Your task to perform on an android device: Go to Google maps Image 0: 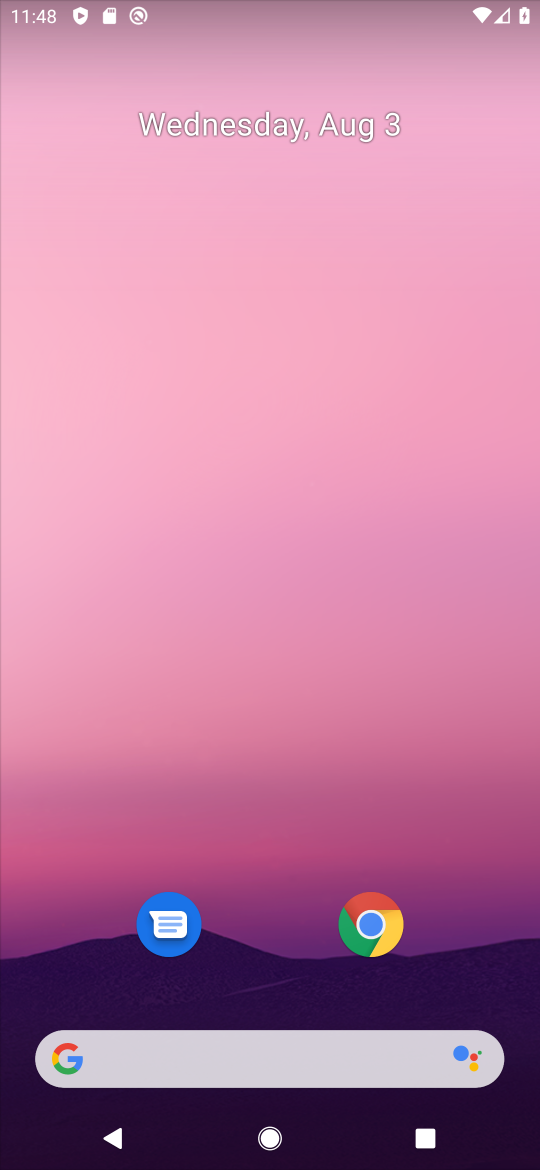
Step 0: drag from (466, 925) to (445, 269)
Your task to perform on an android device: Go to Google maps Image 1: 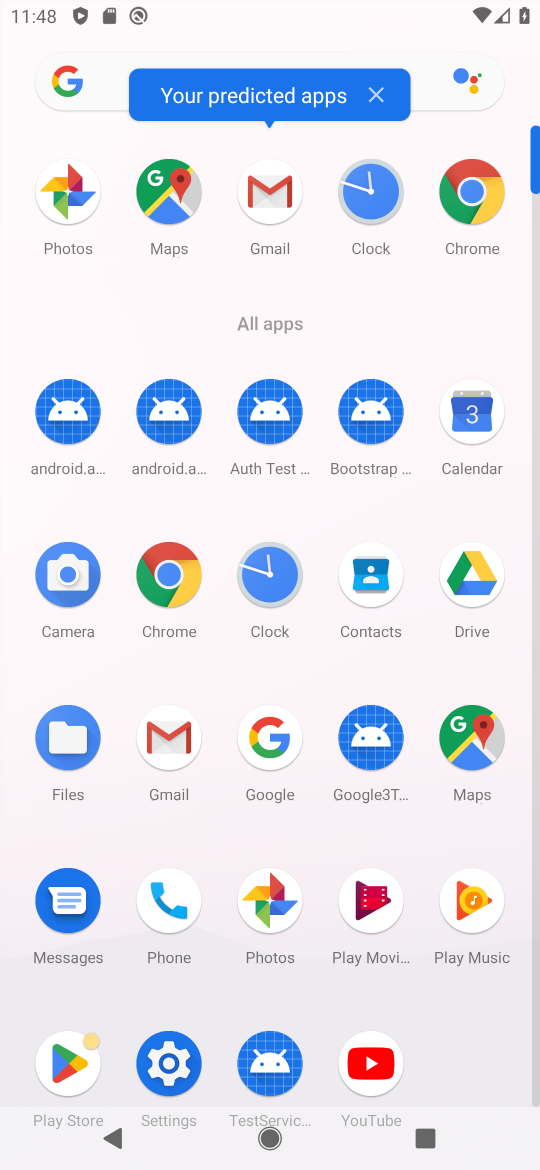
Step 1: click (476, 718)
Your task to perform on an android device: Go to Google maps Image 2: 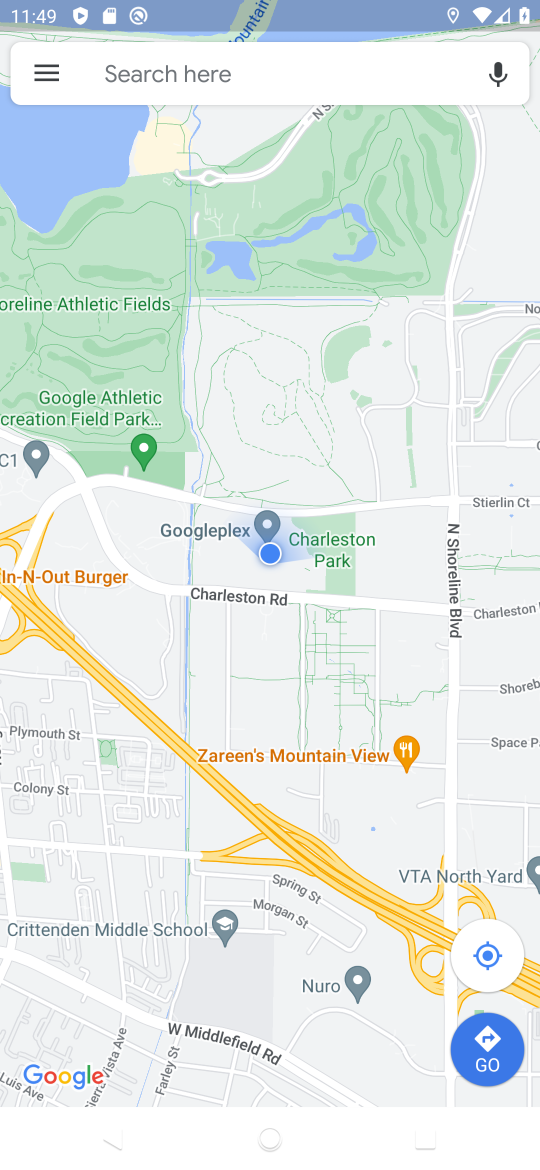
Step 2: task complete